Your task to perform on an android device: Is it going to rain today? Image 0: 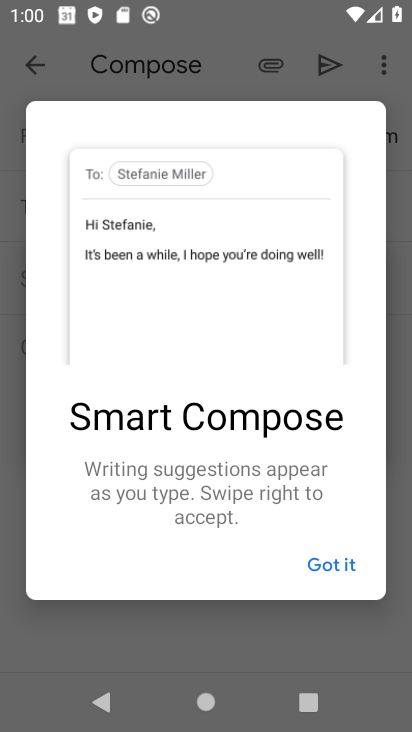
Step 0: press home button
Your task to perform on an android device: Is it going to rain today? Image 1: 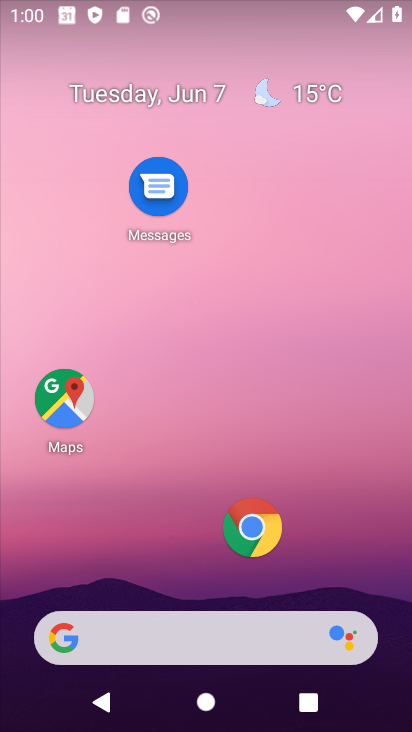
Step 1: drag from (125, 620) to (125, 325)
Your task to perform on an android device: Is it going to rain today? Image 2: 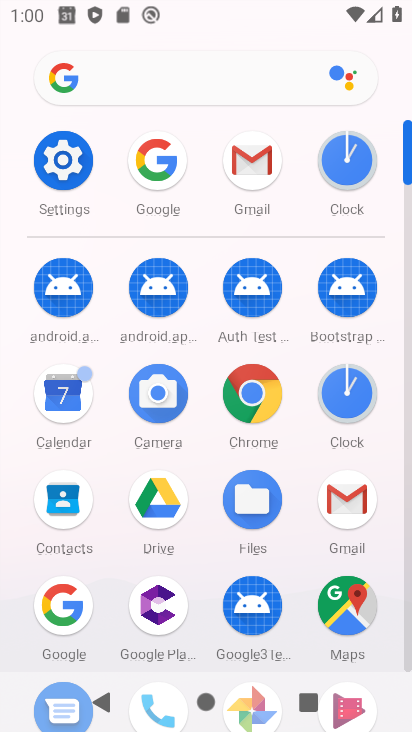
Step 2: click (68, 607)
Your task to perform on an android device: Is it going to rain today? Image 3: 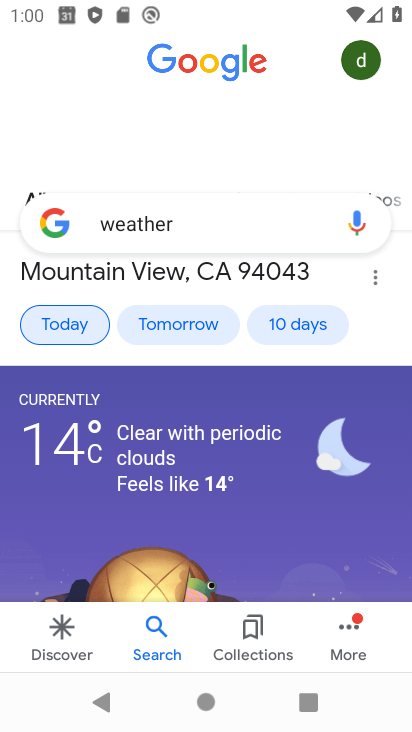
Step 3: click (199, 228)
Your task to perform on an android device: Is it going to rain today? Image 4: 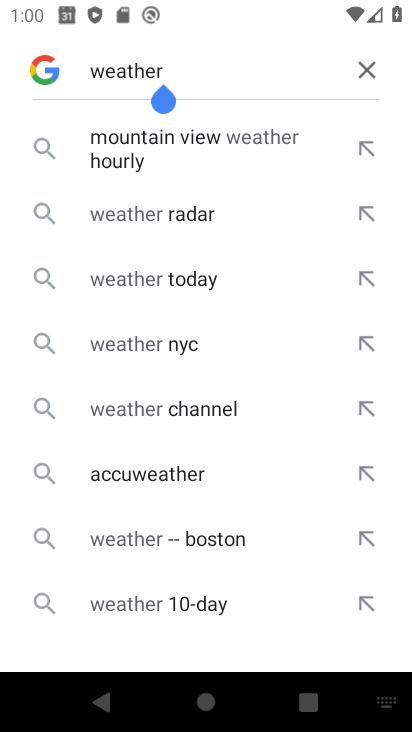
Step 4: click (370, 71)
Your task to perform on an android device: Is it going to rain today? Image 5: 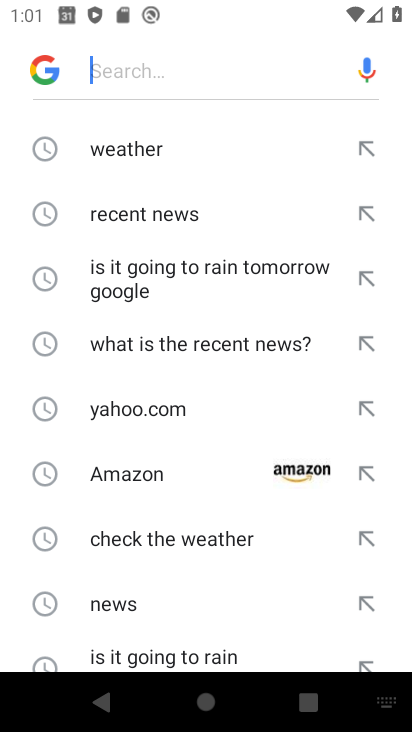
Step 5: drag from (162, 569) to (158, 316)
Your task to perform on an android device: Is it going to rain today? Image 6: 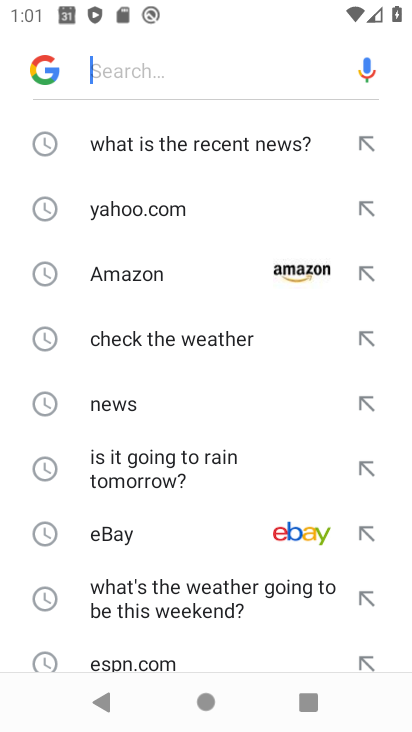
Step 6: drag from (157, 645) to (147, 350)
Your task to perform on an android device: Is it going to rain today? Image 7: 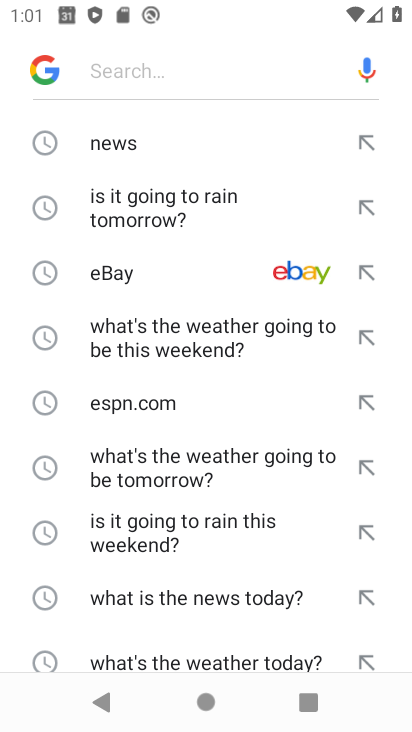
Step 7: drag from (196, 645) to (160, 371)
Your task to perform on an android device: Is it going to rain today? Image 8: 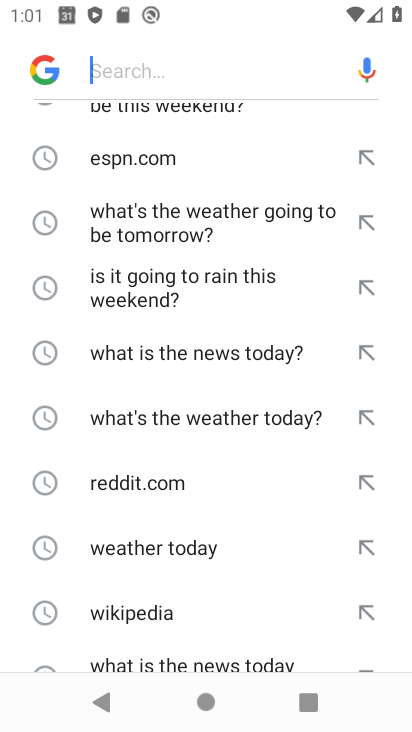
Step 8: drag from (143, 635) to (140, 389)
Your task to perform on an android device: Is it going to rain today? Image 9: 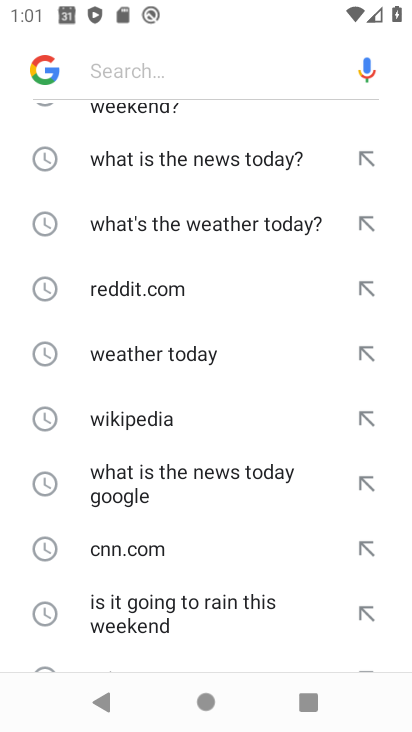
Step 9: drag from (135, 637) to (135, 360)
Your task to perform on an android device: Is it going to rain today? Image 10: 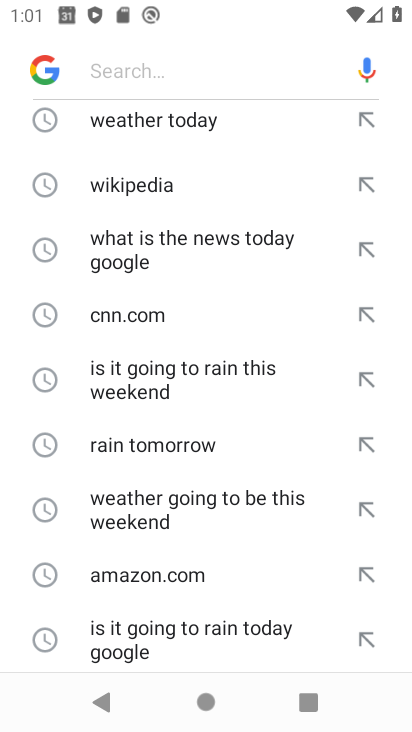
Step 10: drag from (180, 646) to (164, 400)
Your task to perform on an android device: Is it going to rain today? Image 11: 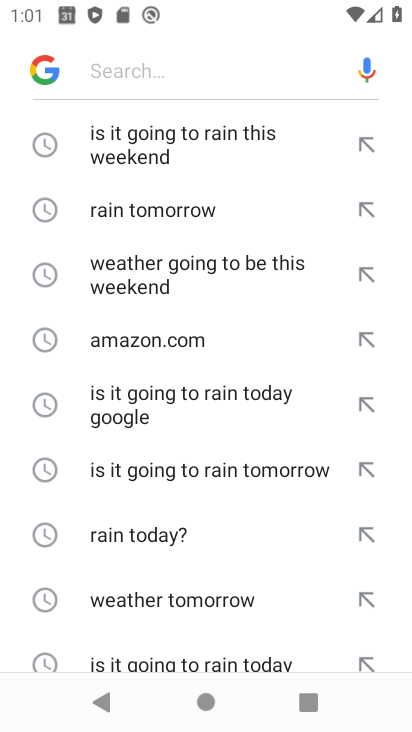
Step 11: click (201, 396)
Your task to perform on an android device: Is it going to rain today? Image 12: 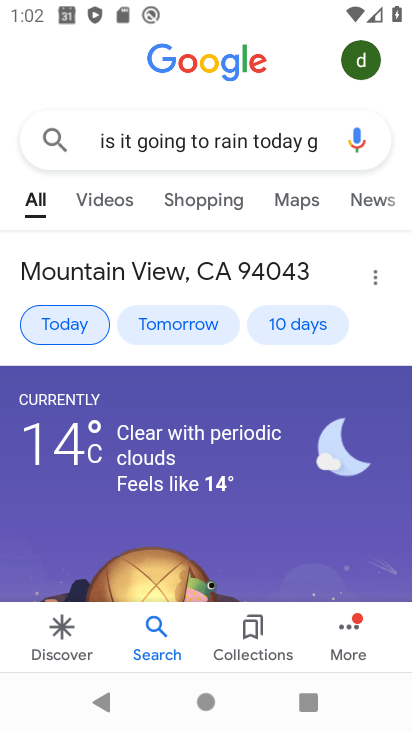
Step 12: task complete